Your task to perform on an android device: Go to notification settings Image 0: 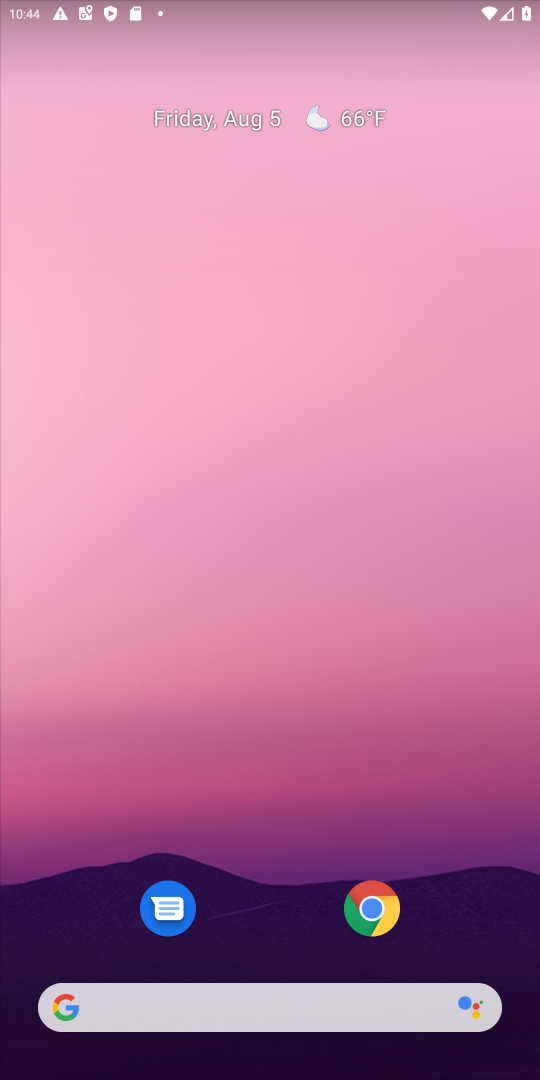
Step 0: drag from (69, 864) to (272, 228)
Your task to perform on an android device: Go to notification settings Image 1: 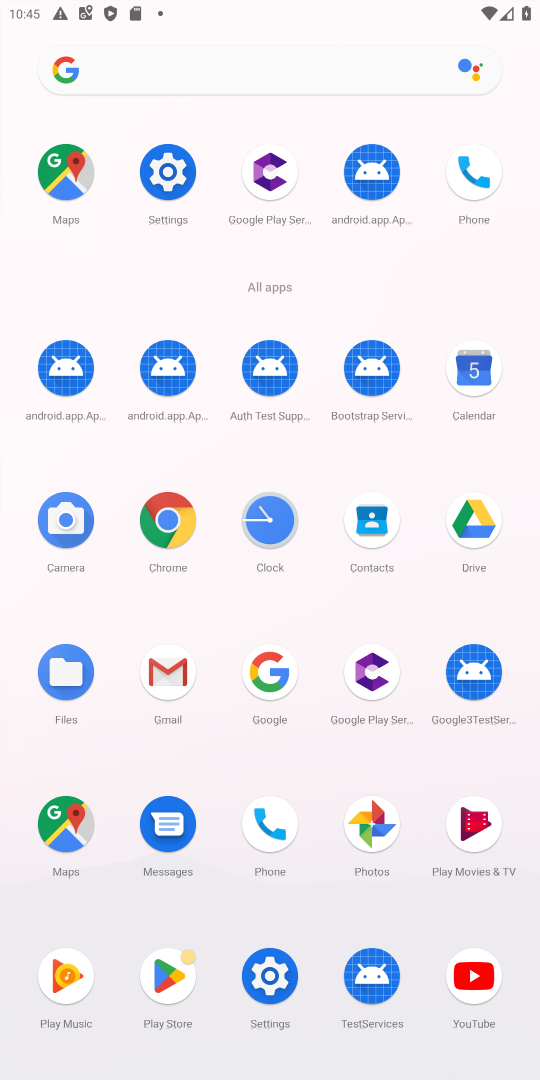
Step 1: click (261, 967)
Your task to perform on an android device: Go to notification settings Image 2: 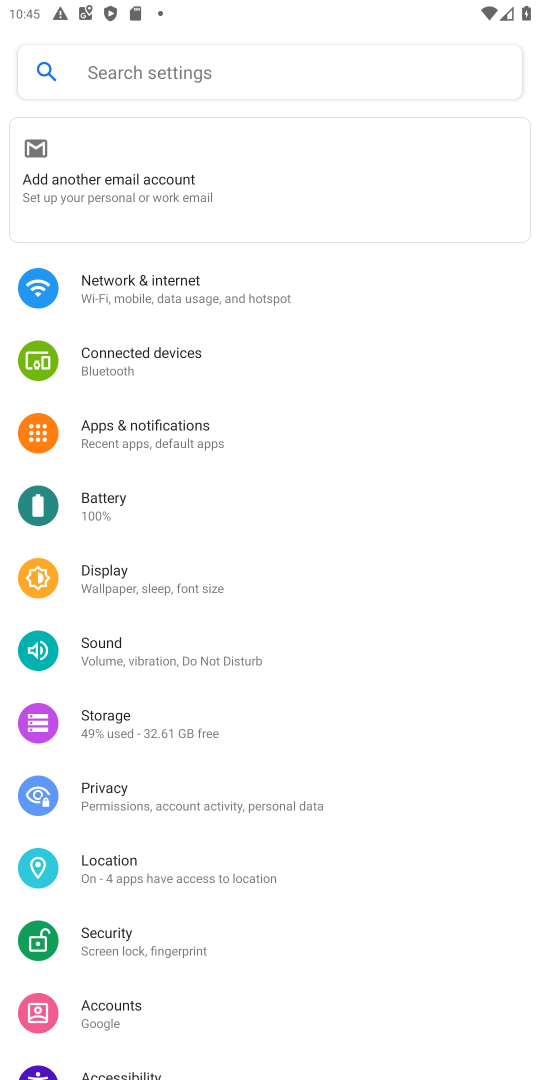
Step 2: click (195, 418)
Your task to perform on an android device: Go to notification settings Image 3: 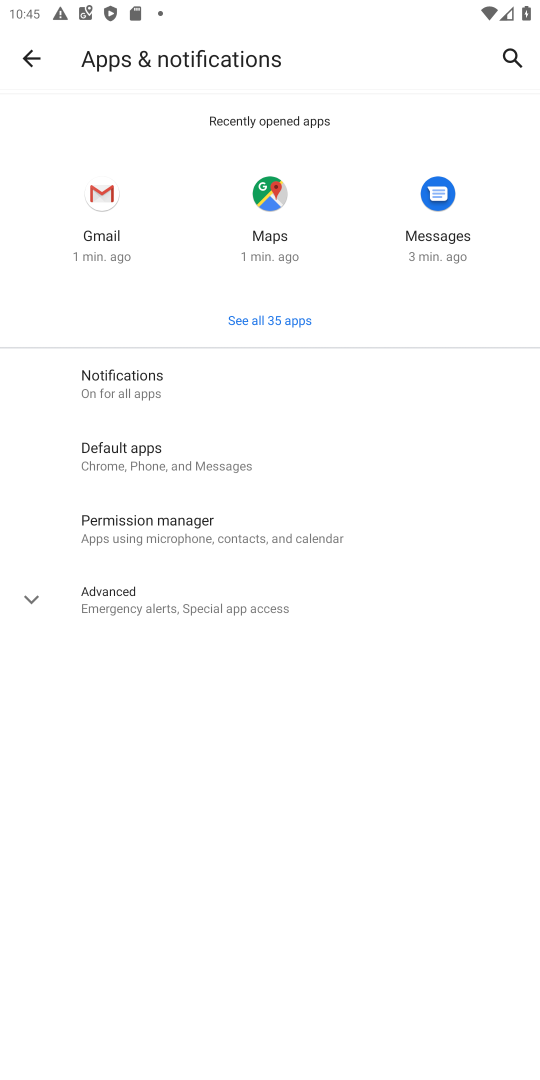
Step 3: task complete